Your task to perform on an android device: check out phone information Image 0: 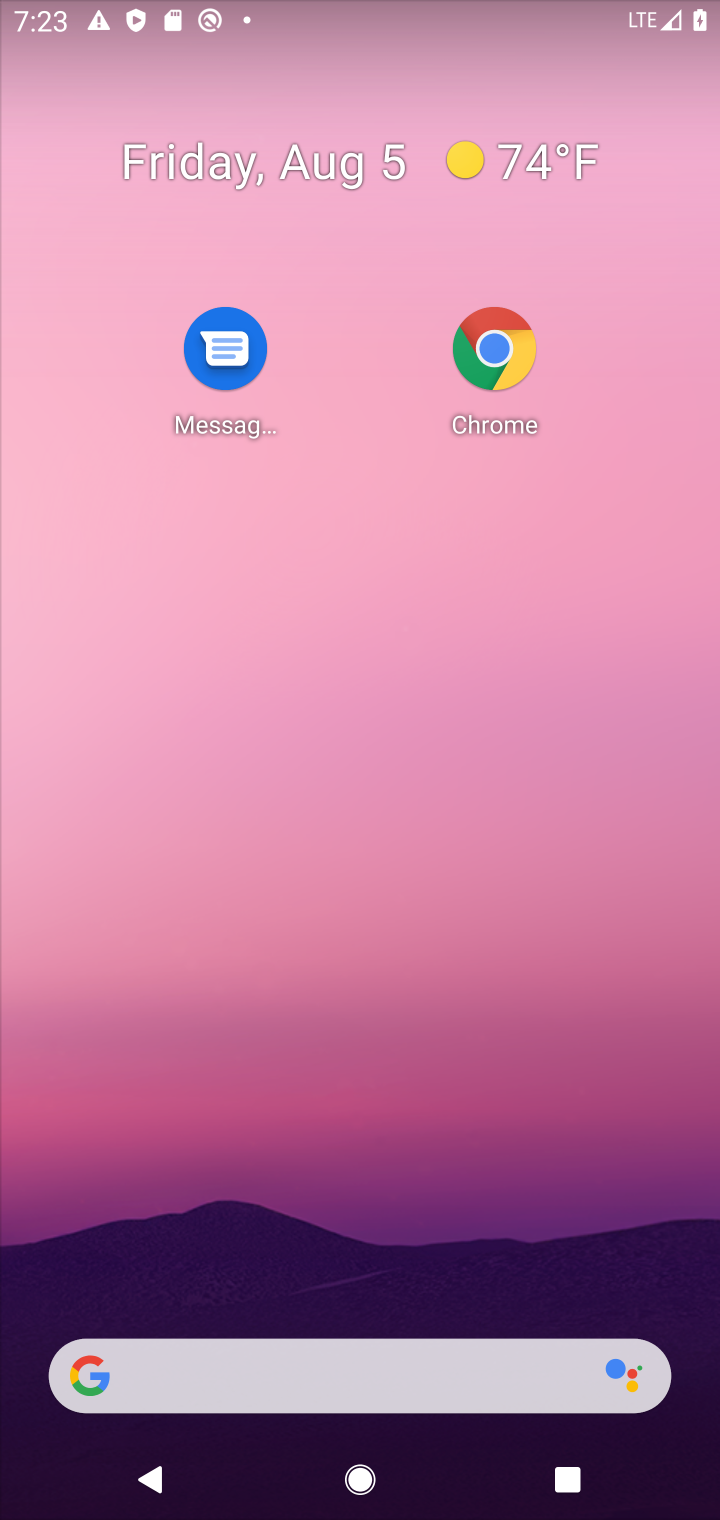
Step 0: press home button
Your task to perform on an android device: check out phone information Image 1: 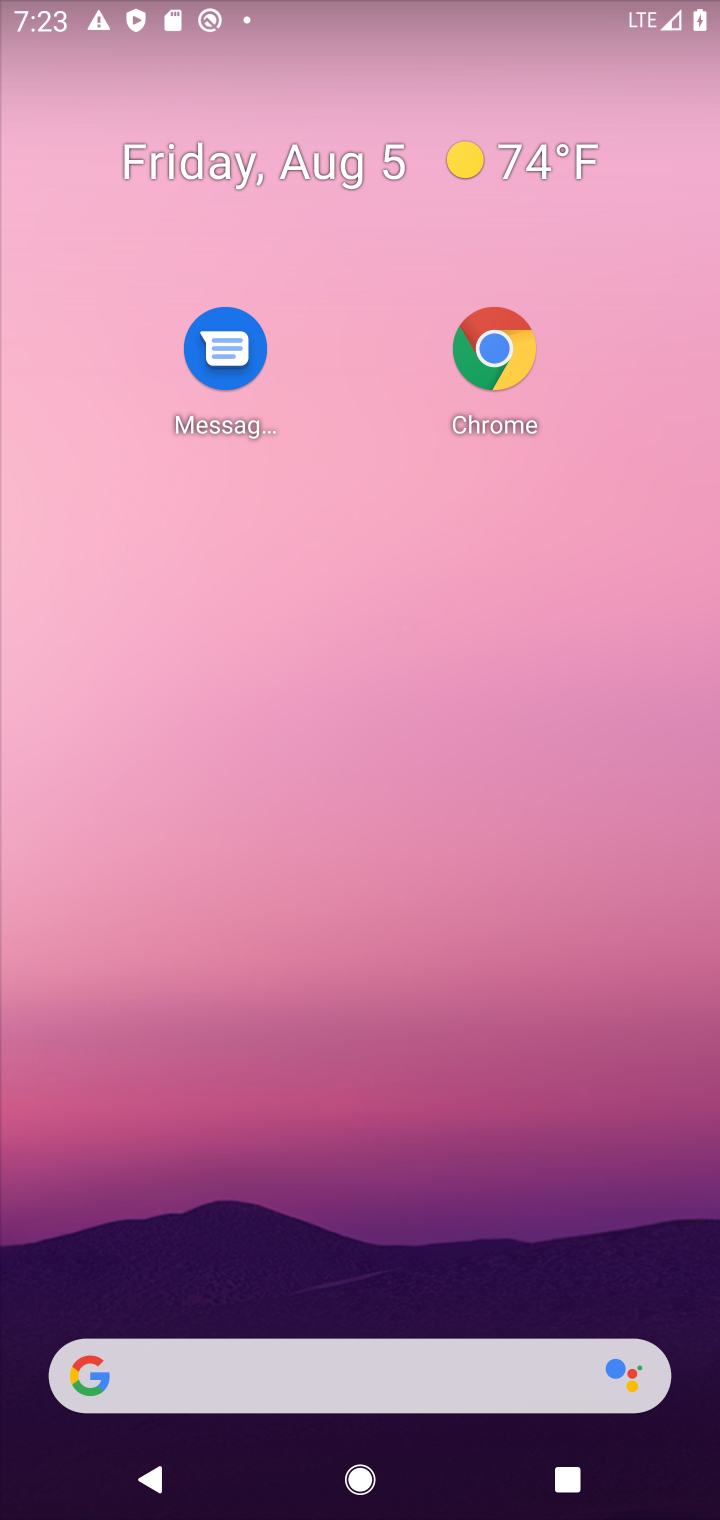
Step 1: drag from (405, 1416) to (595, 409)
Your task to perform on an android device: check out phone information Image 2: 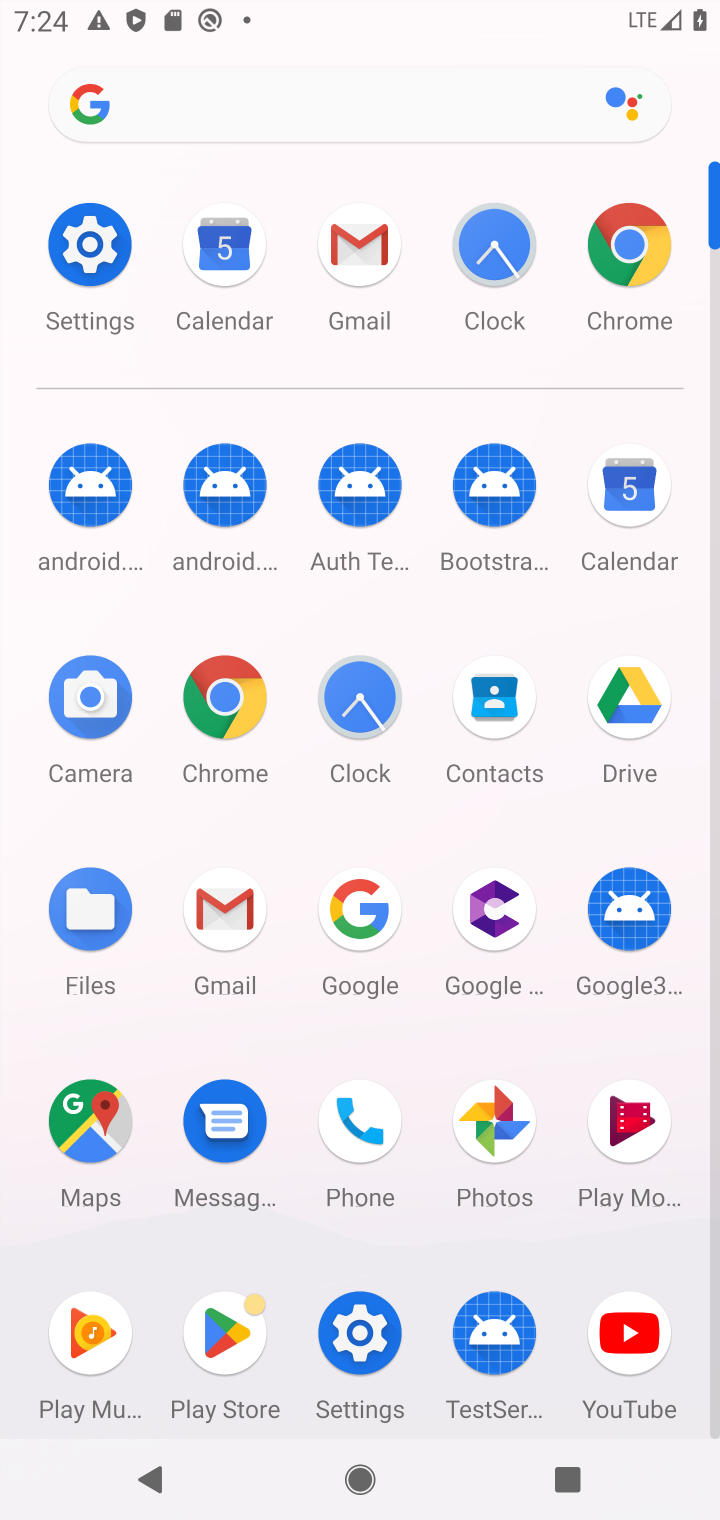
Step 2: click (80, 261)
Your task to perform on an android device: check out phone information Image 3: 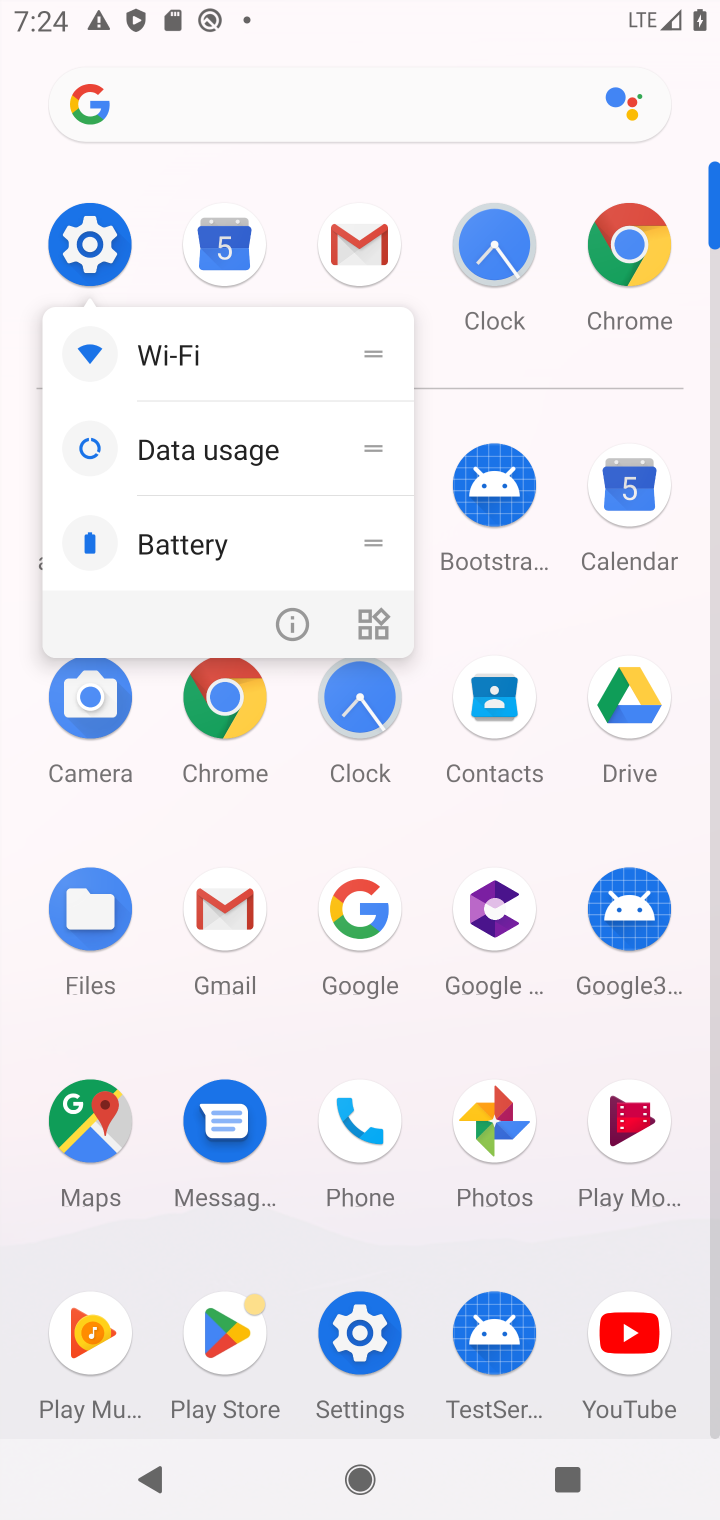
Step 3: click (80, 259)
Your task to perform on an android device: check out phone information Image 4: 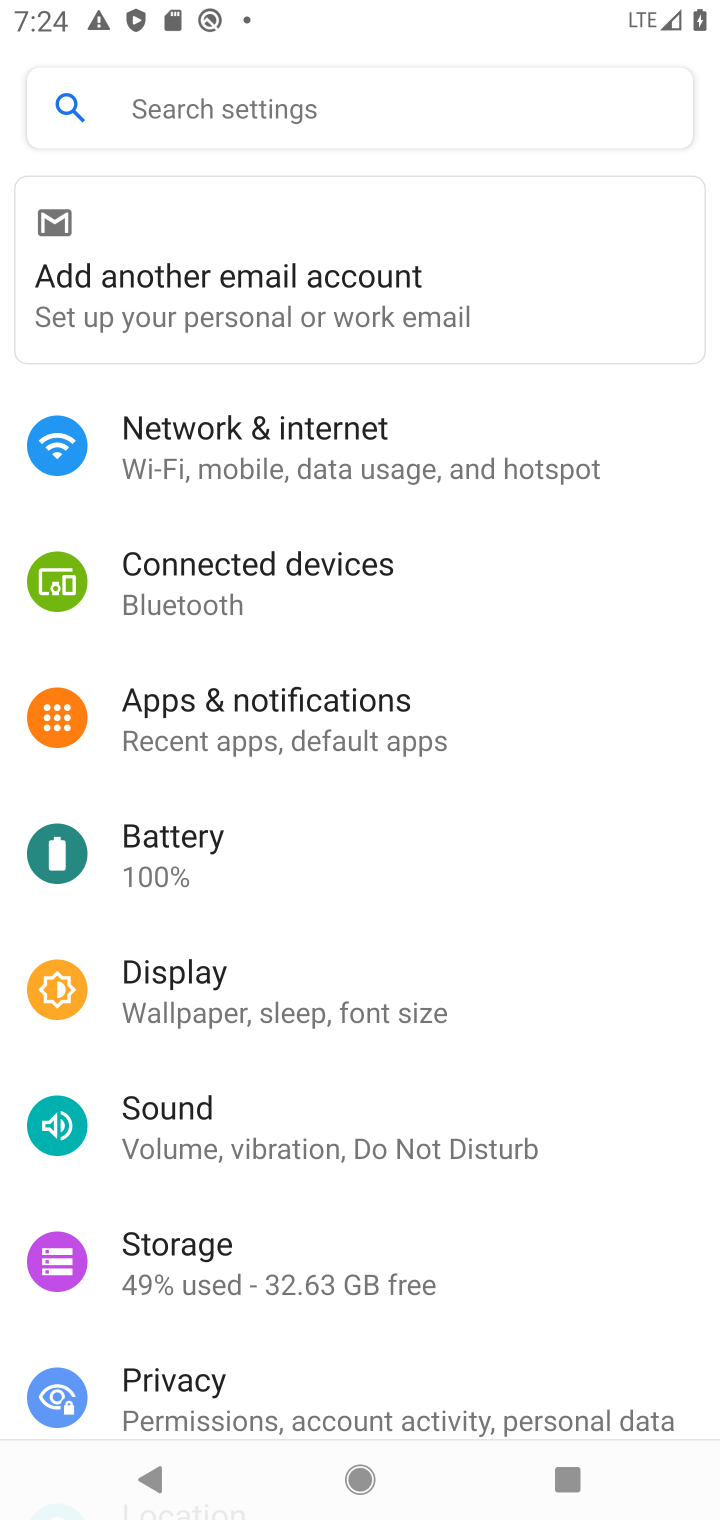
Step 4: click (199, 85)
Your task to perform on an android device: check out phone information Image 5: 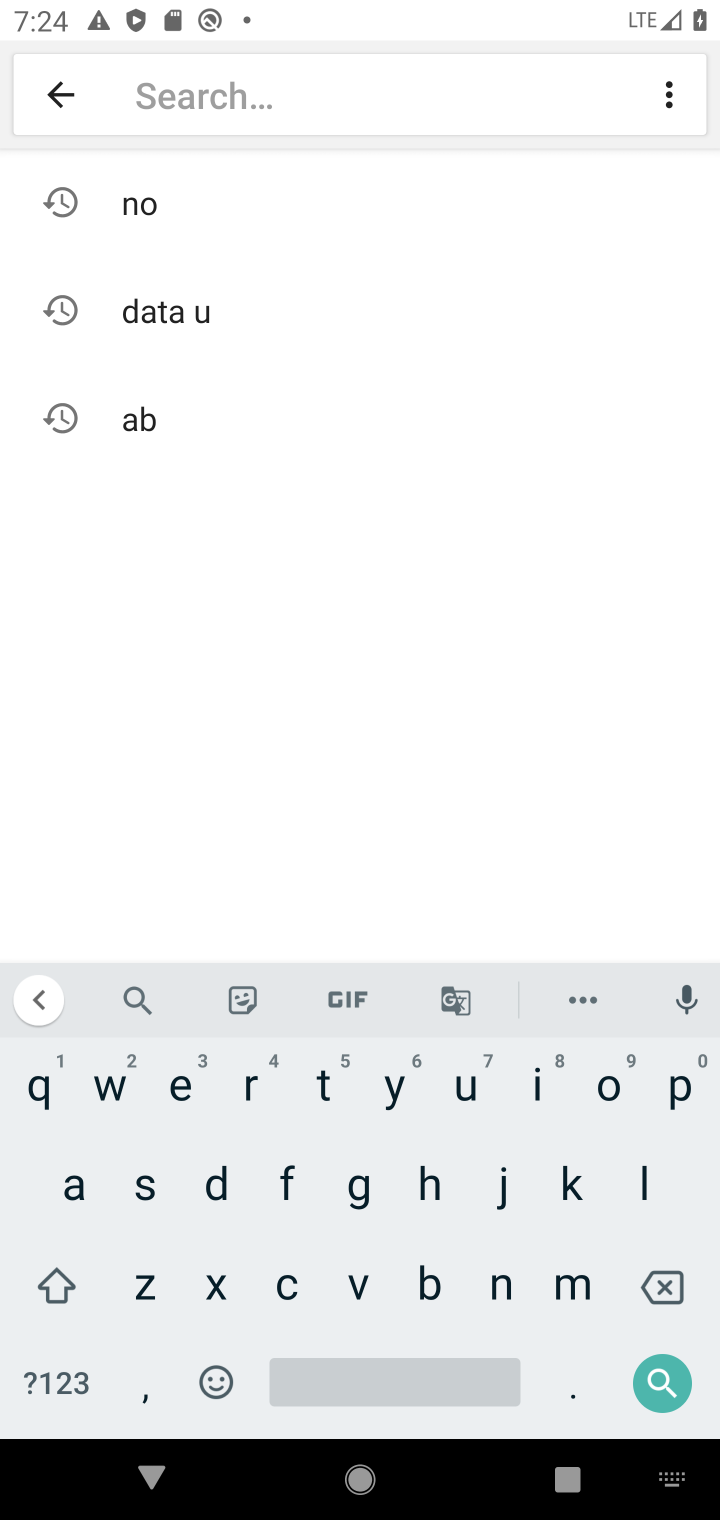
Step 5: click (72, 1200)
Your task to perform on an android device: check out phone information Image 6: 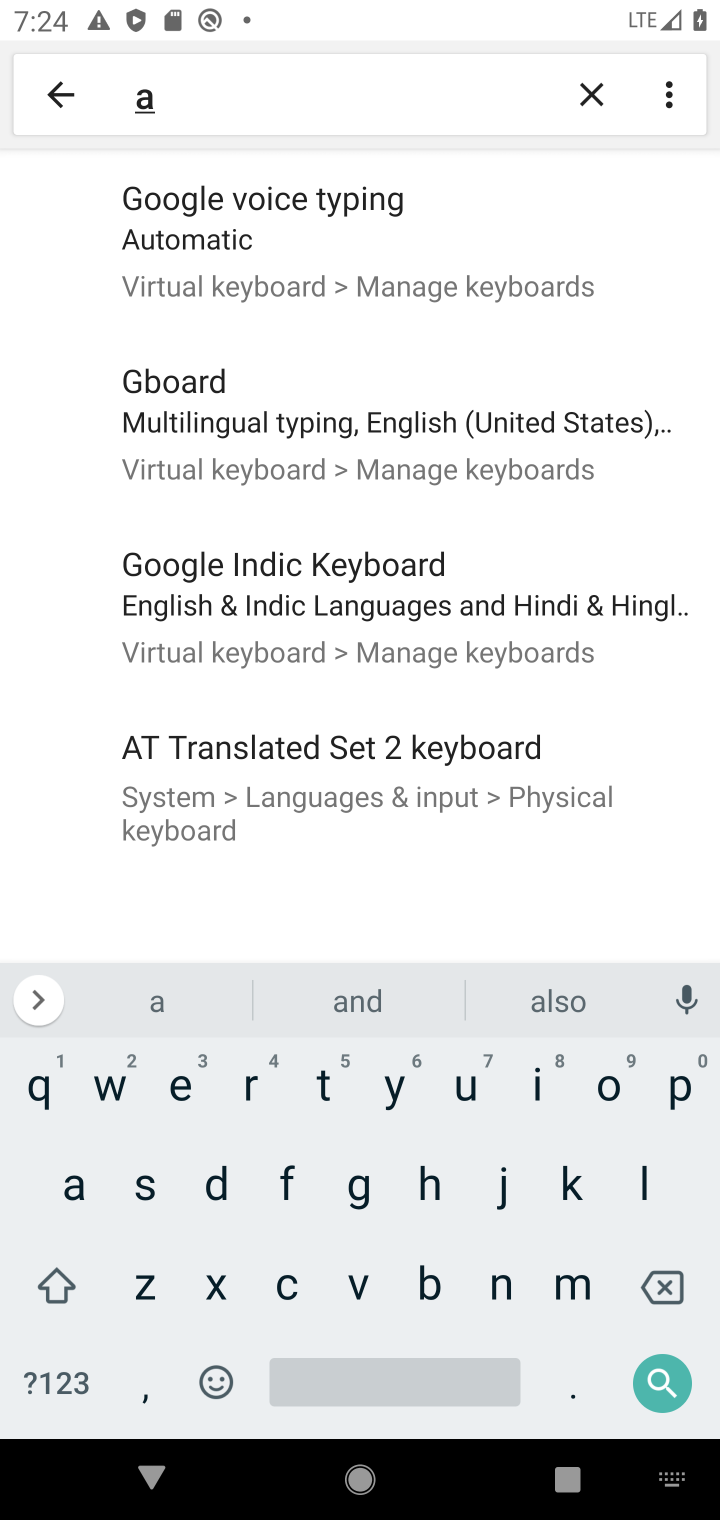
Step 6: click (421, 1269)
Your task to perform on an android device: check out phone information Image 7: 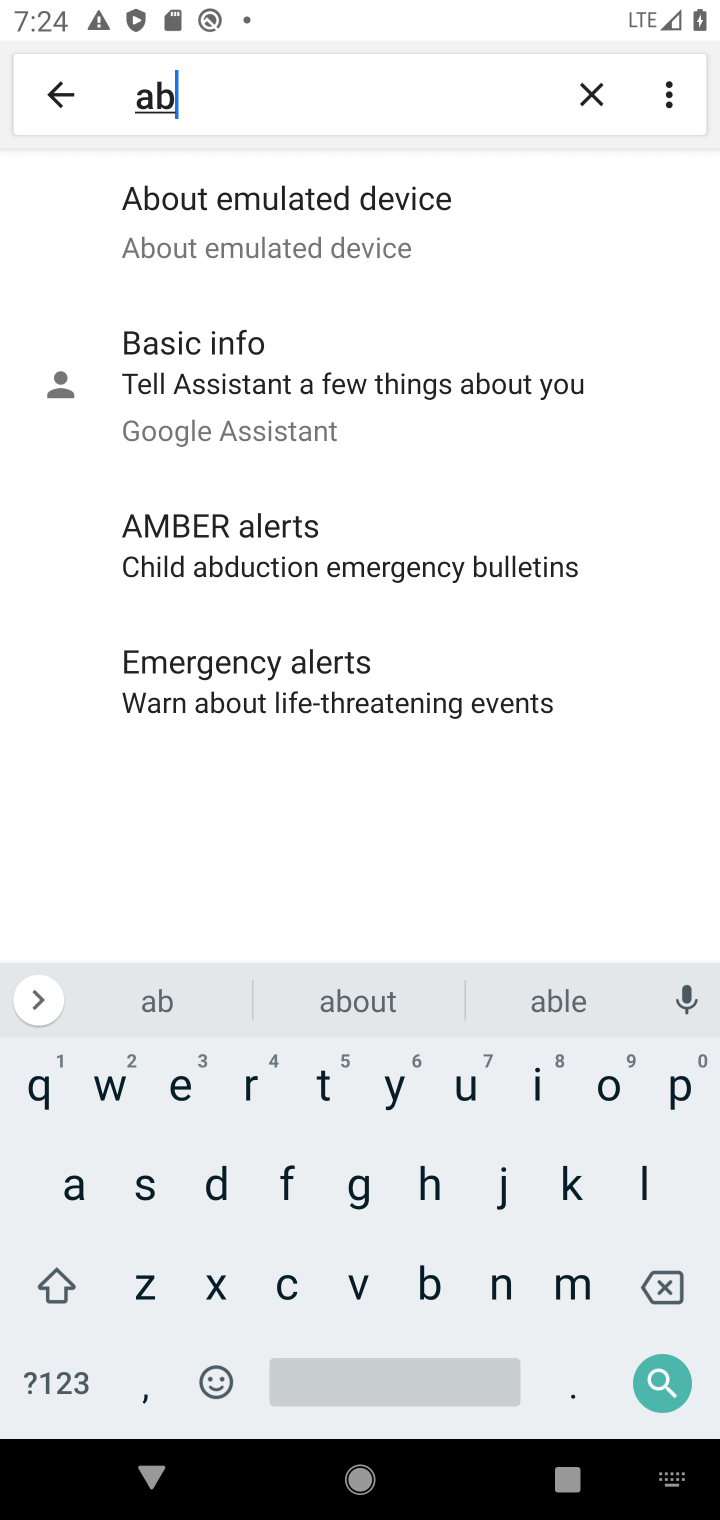
Step 7: click (353, 223)
Your task to perform on an android device: check out phone information Image 8: 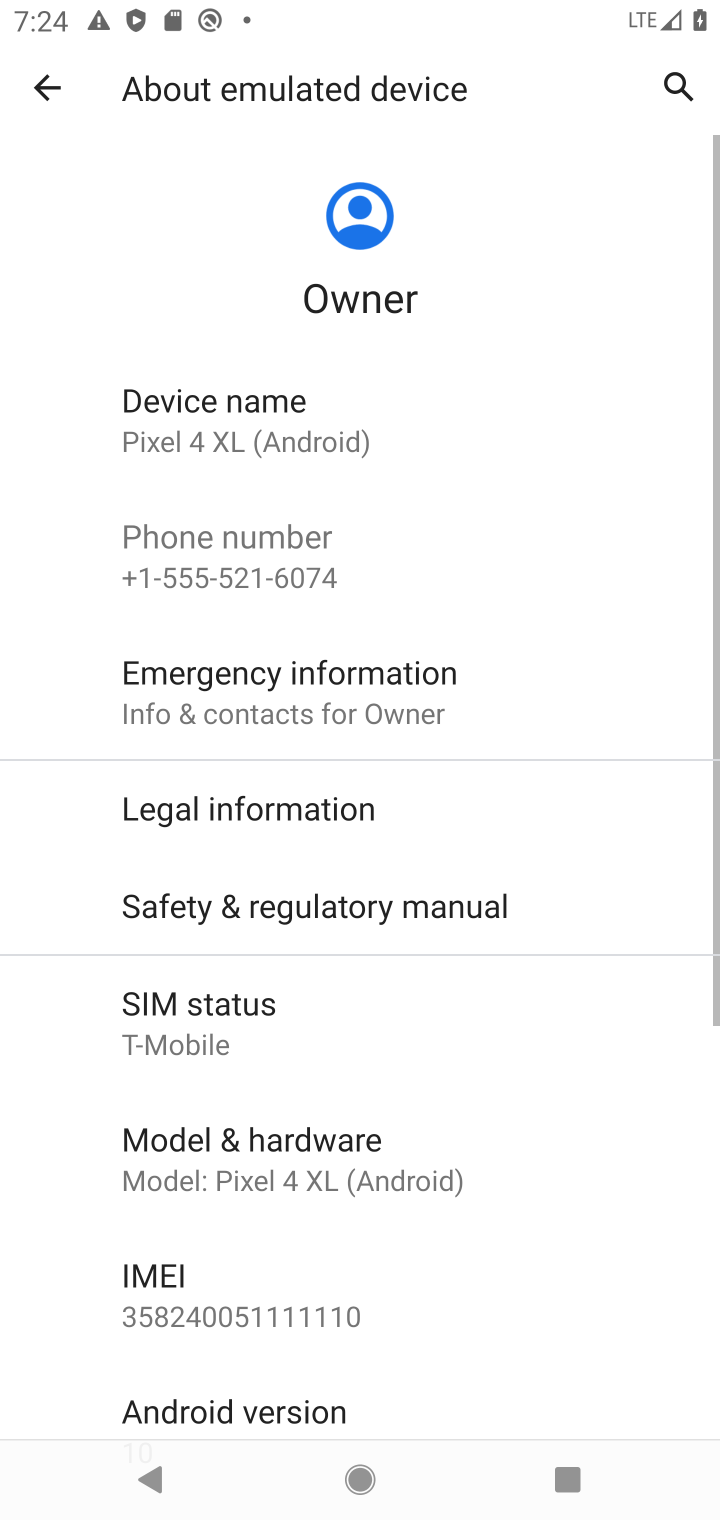
Step 8: task complete